Your task to perform on an android device: delete location history Image 0: 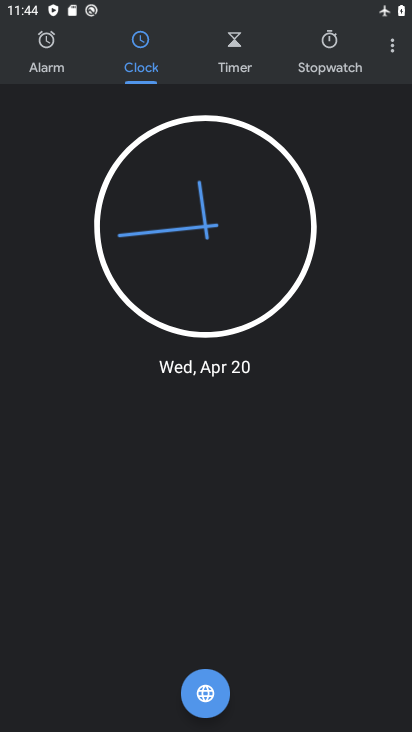
Step 0: press home button
Your task to perform on an android device: delete location history Image 1: 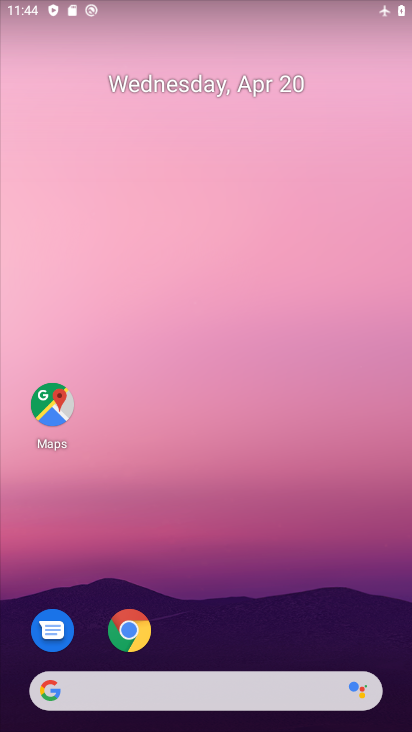
Step 1: drag from (243, 511) to (277, 51)
Your task to perform on an android device: delete location history Image 2: 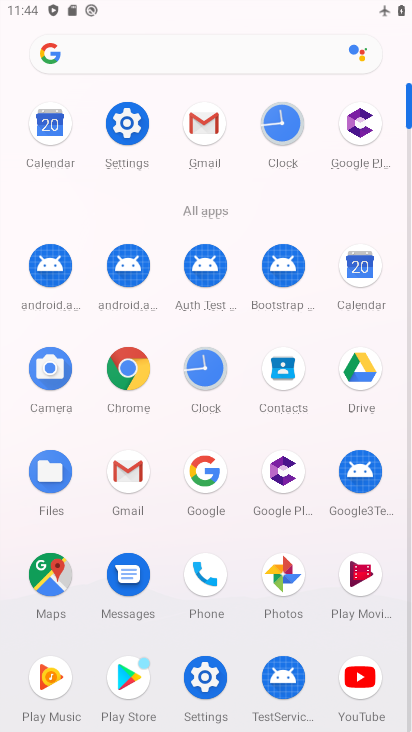
Step 2: click (42, 579)
Your task to perform on an android device: delete location history Image 3: 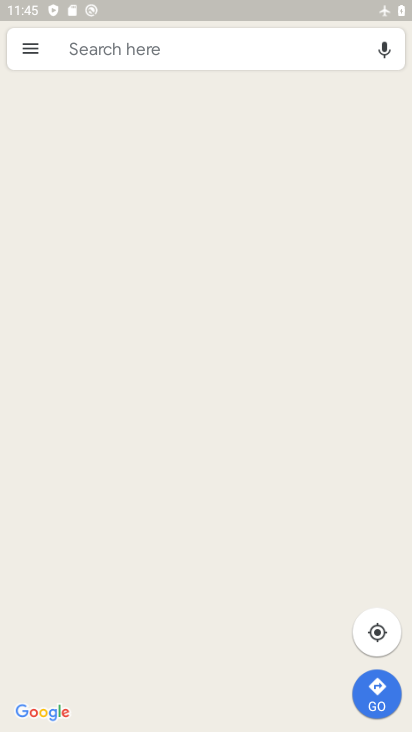
Step 3: click (39, 48)
Your task to perform on an android device: delete location history Image 4: 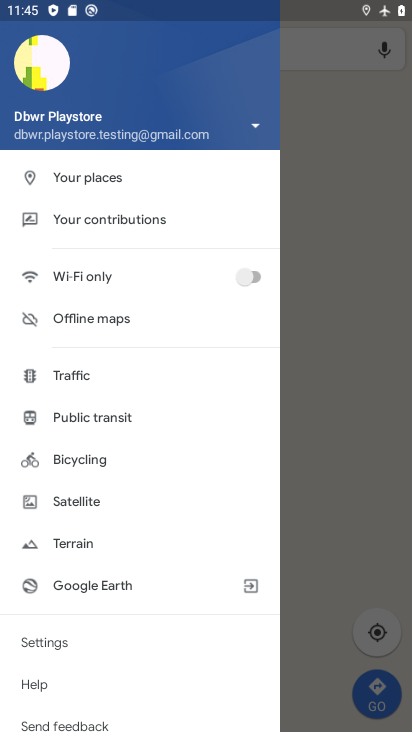
Step 4: drag from (147, 659) to (222, 264)
Your task to perform on an android device: delete location history Image 5: 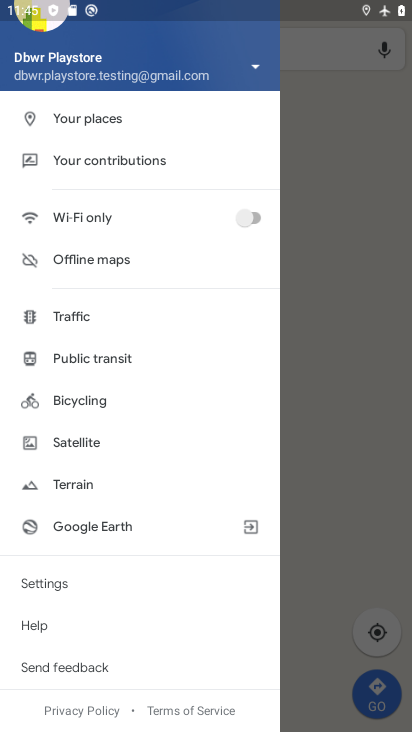
Step 5: drag from (140, 265) to (109, 517)
Your task to perform on an android device: delete location history Image 6: 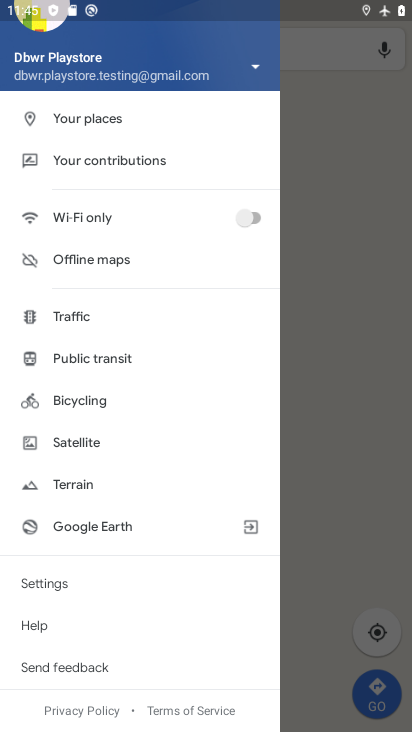
Step 6: drag from (132, 247) to (135, 570)
Your task to perform on an android device: delete location history Image 7: 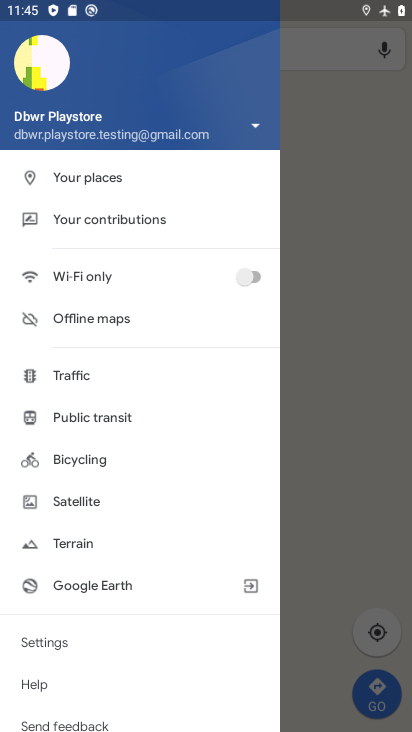
Step 7: drag from (181, 504) to (200, 290)
Your task to perform on an android device: delete location history Image 8: 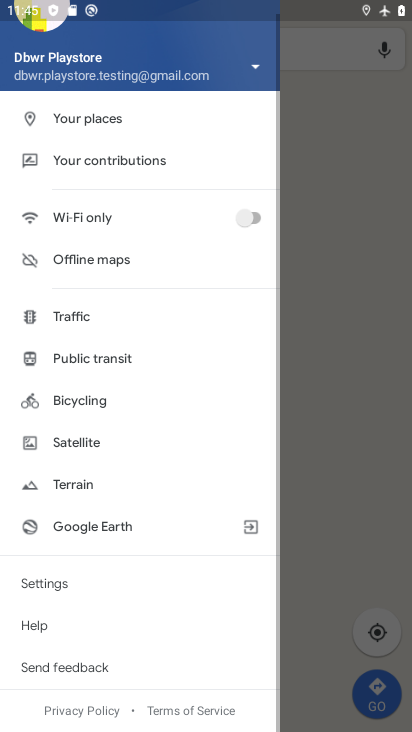
Step 8: click (39, 585)
Your task to perform on an android device: delete location history Image 9: 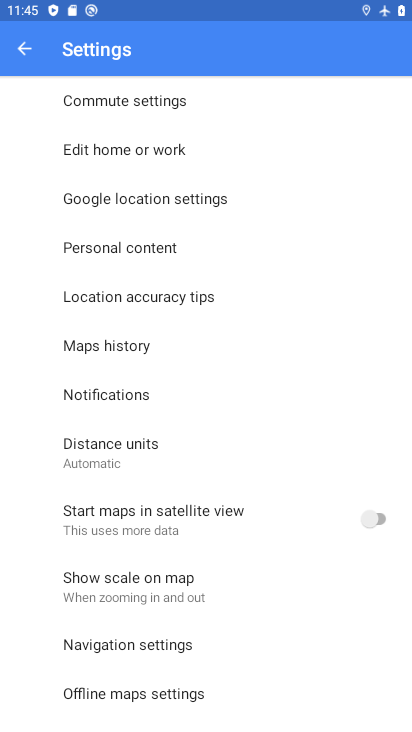
Step 9: drag from (240, 679) to (271, 205)
Your task to perform on an android device: delete location history Image 10: 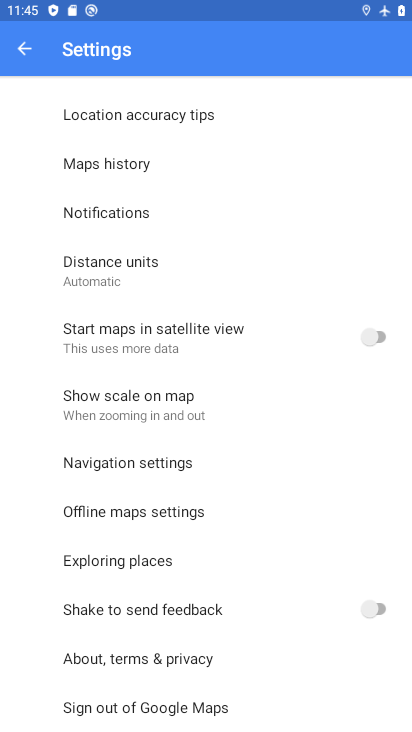
Step 10: click (15, 44)
Your task to perform on an android device: delete location history Image 11: 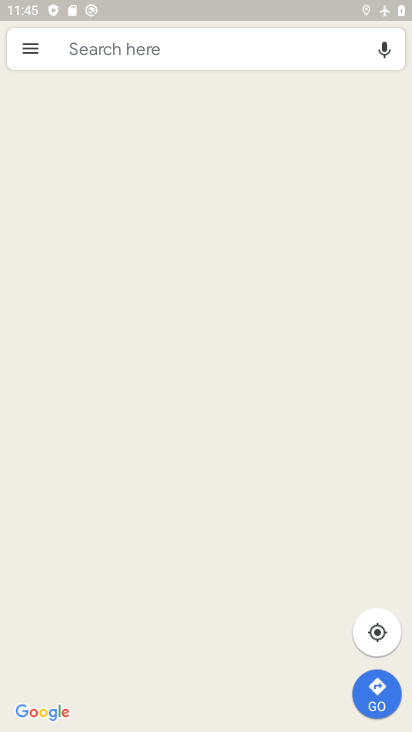
Step 11: click (28, 45)
Your task to perform on an android device: delete location history Image 12: 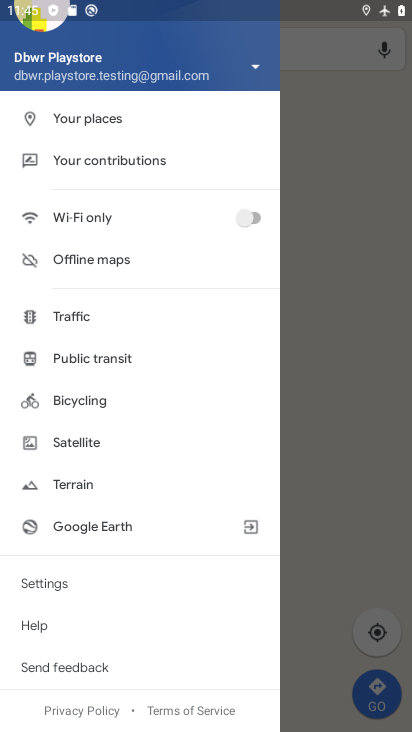
Step 12: drag from (149, 276) to (115, 436)
Your task to perform on an android device: delete location history Image 13: 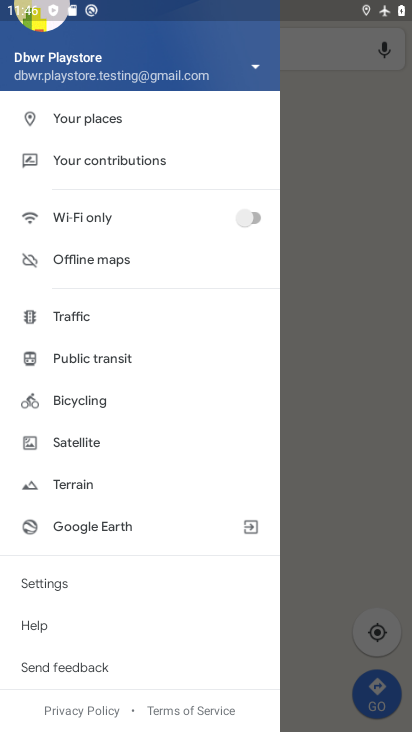
Step 13: click (66, 585)
Your task to perform on an android device: delete location history Image 14: 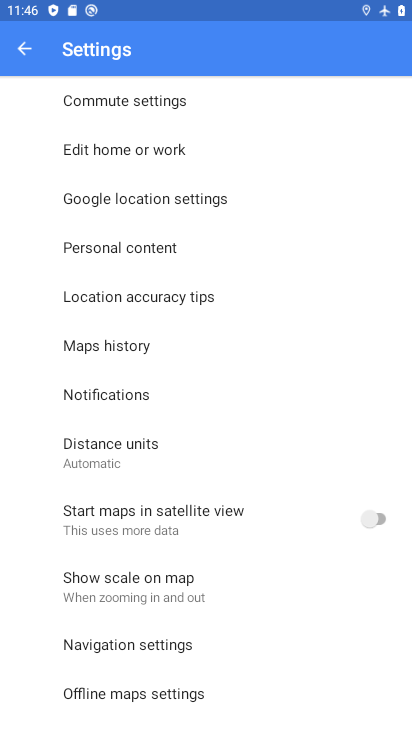
Step 14: task complete